Your task to perform on an android device: Go to privacy settings Image 0: 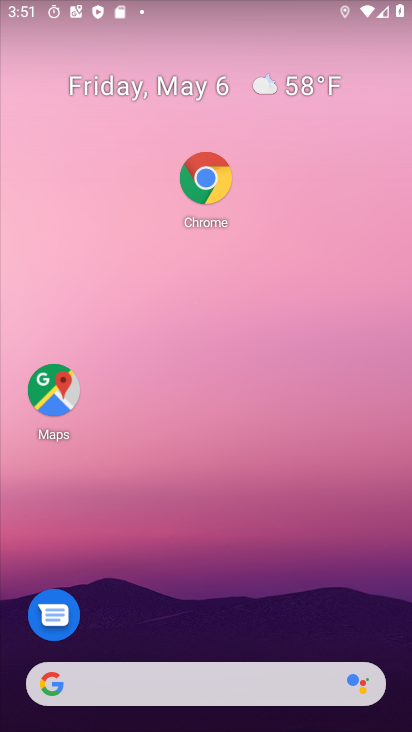
Step 0: drag from (256, 494) to (100, 12)
Your task to perform on an android device: Go to privacy settings Image 1: 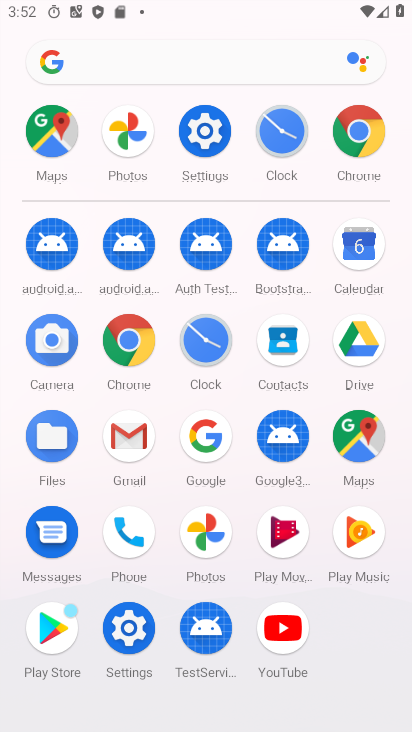
Step 1: click (197, 131)
Your task to perform on an android device: Go to privacy settings Image 2: 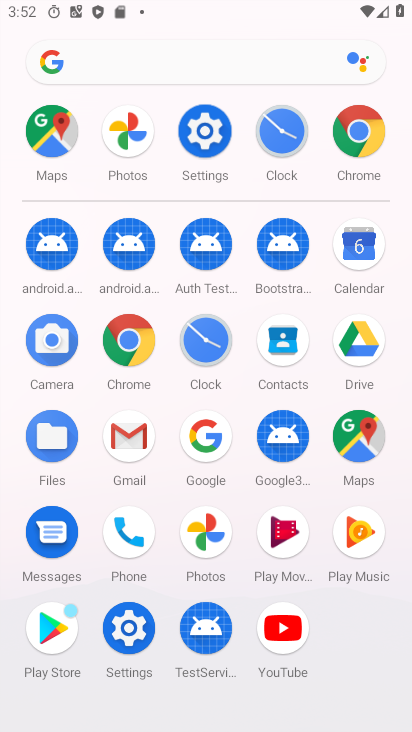
Step 2: click (197, 131)
Your task to perform on an android device: Go to privacy settings Image 3: 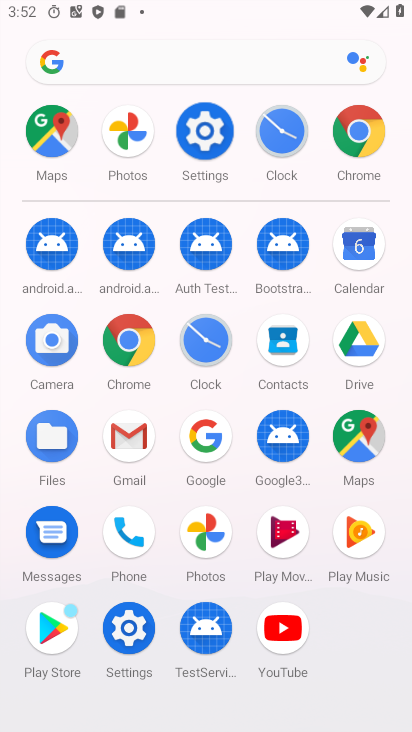
Step 3: click (197, 131)
Your task to perform on an android device: Go to privacy settings Image 4: 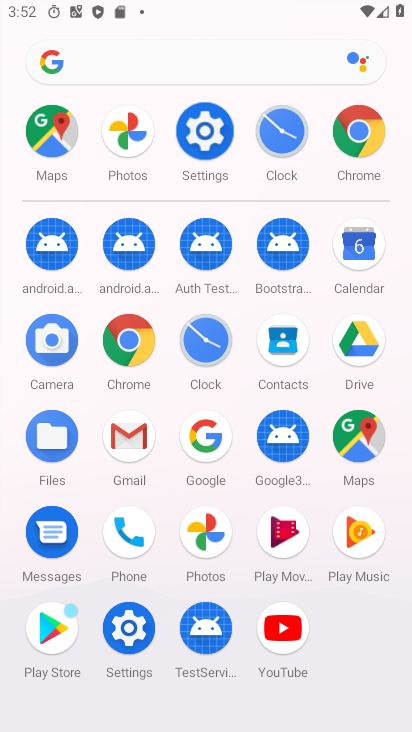
Step 4: click (197, 131)
Your task to perform on an android device: Go to privacy settings Image 5: 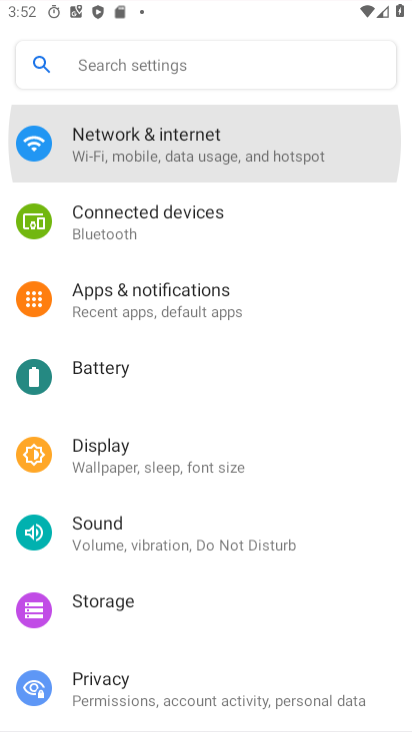
Step 5: click (197, 131)
Your task to perform on an android device: Go to privacy settings Image 6: 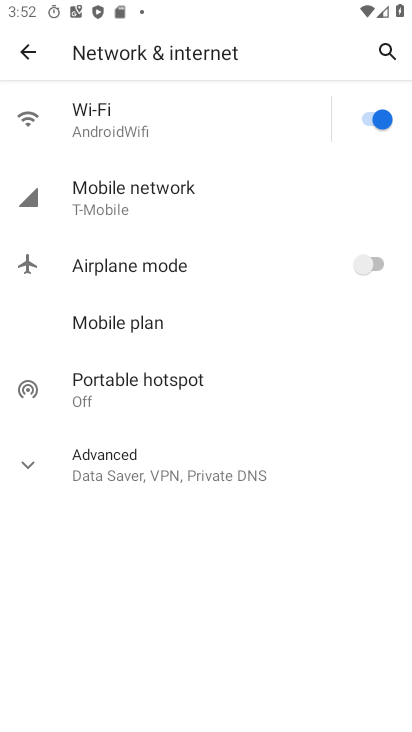
Step 6: click (28, 45)
Your task to perform on an android device: Go to privacy settings Image 7: 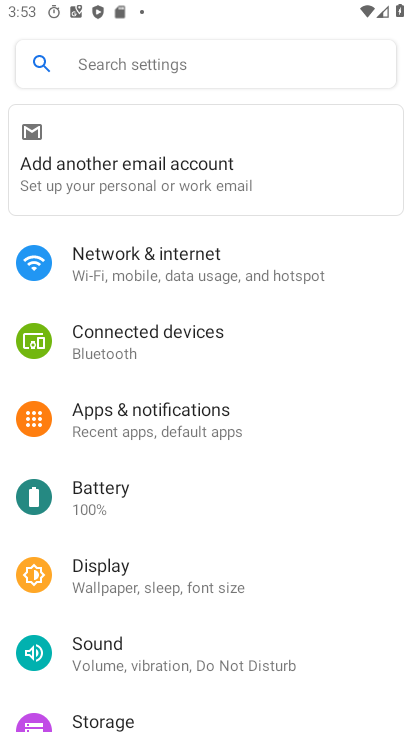
Step 7: drag from (161, 575) to (16, 29)
Your task to perform on an android device: Go to privacy settings Image 8: 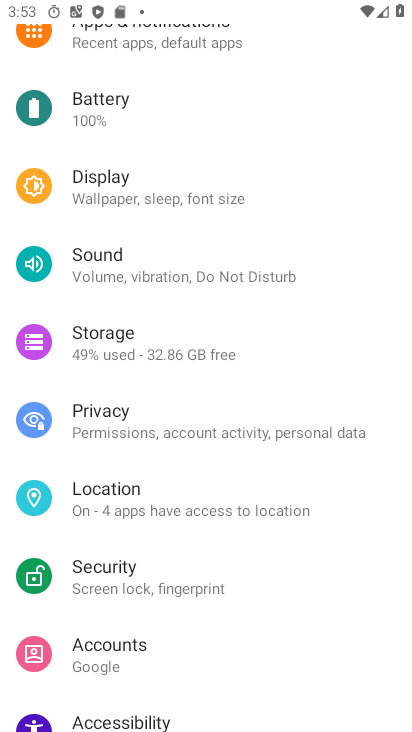
Step 8: drag from (145, 518) to (102, 240)
Your task to perform on an android device: Go to privacy settings Image 9: 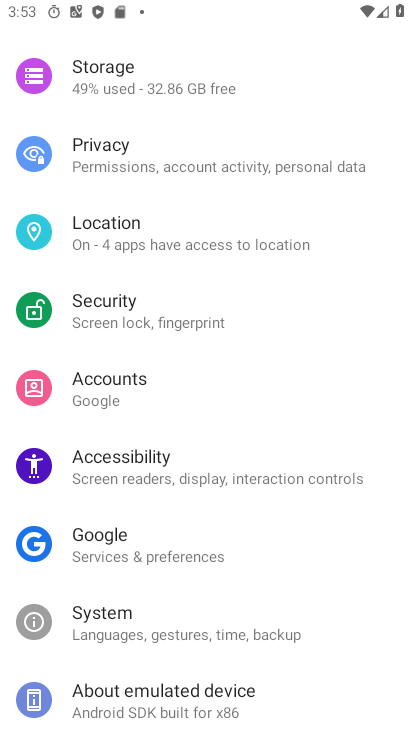
Step 9: click (93, 155)
Your task to perform on an android device: Go to privacy settings Image 10: 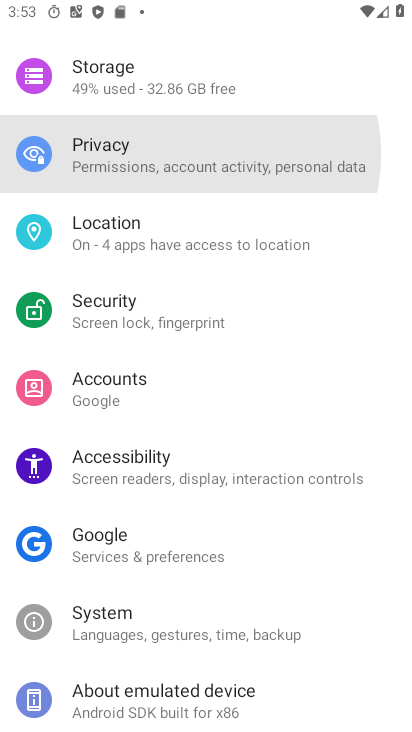
Step 10: click (93, 155)
Your task to perform on an android device: Go to privacy settings Image 11: 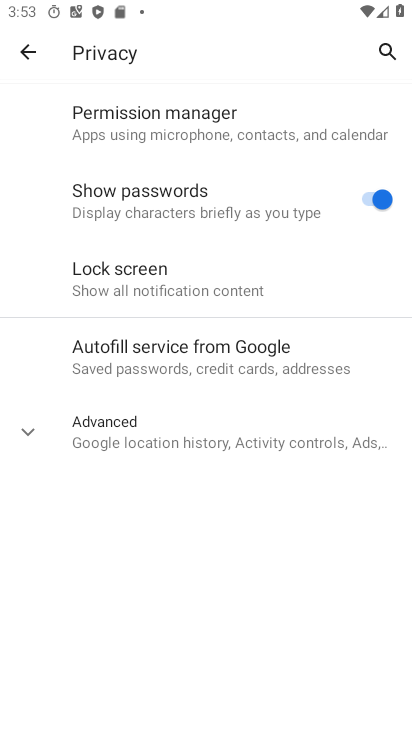
Step 11: task complete